Your task to perform on an android device: Show the shopping cart on target. Add "macbook pro 13 inch" to the cart on target Image 0: 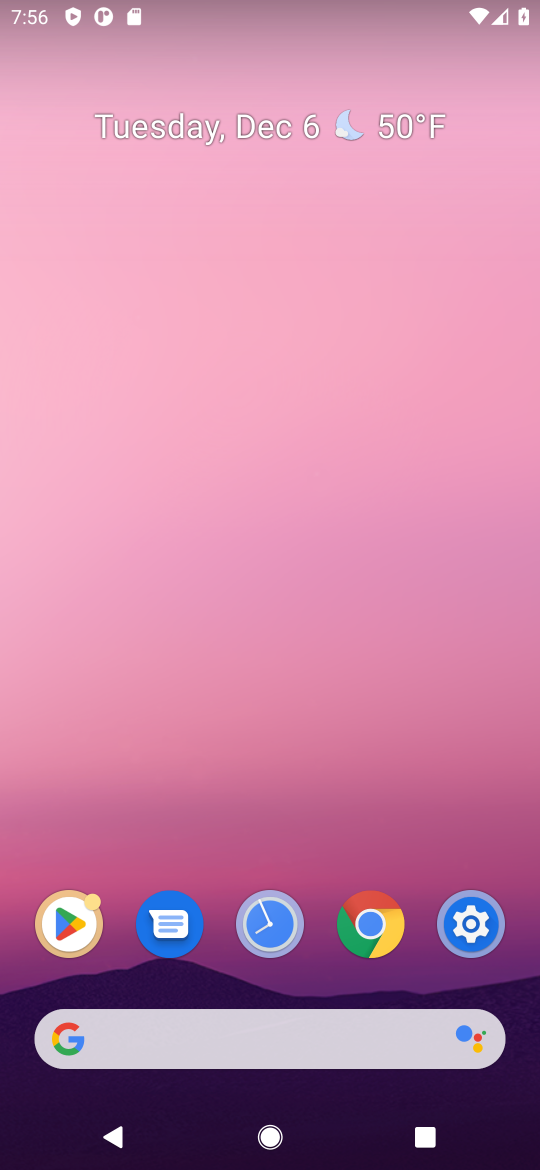
Step 0: click (262, 1024)
Your task to perform on an android device: Show the shopping cart on target. Add "macbook pro 13 inch" to the cart on target Image 1: 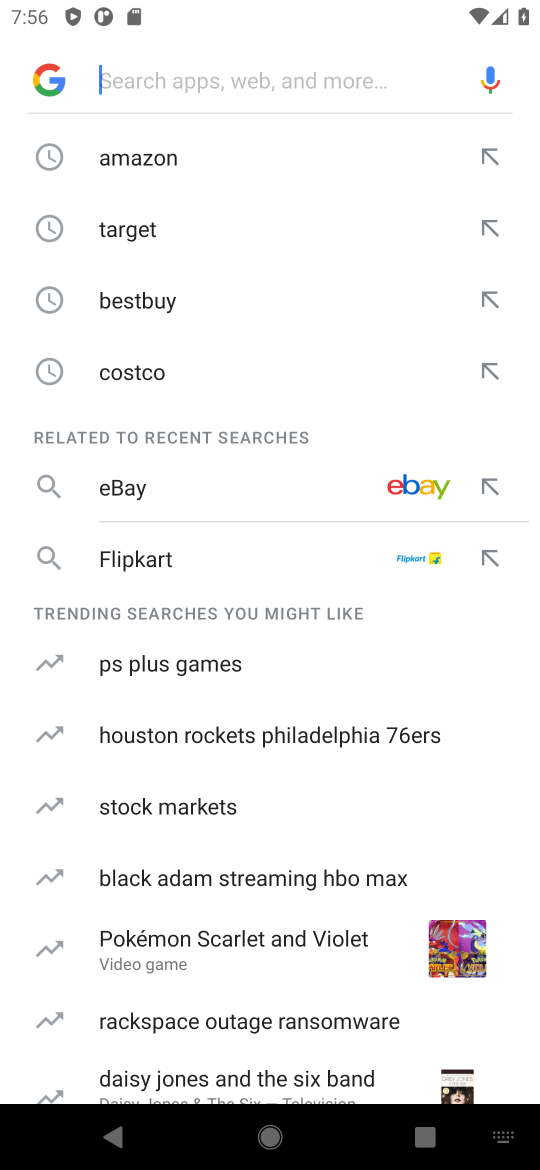
Step 1: type "target"
Your task to perform on an android device: Show the shopping cart on target. Add "macbook pro 13 inch" to the cart on target Image 2: 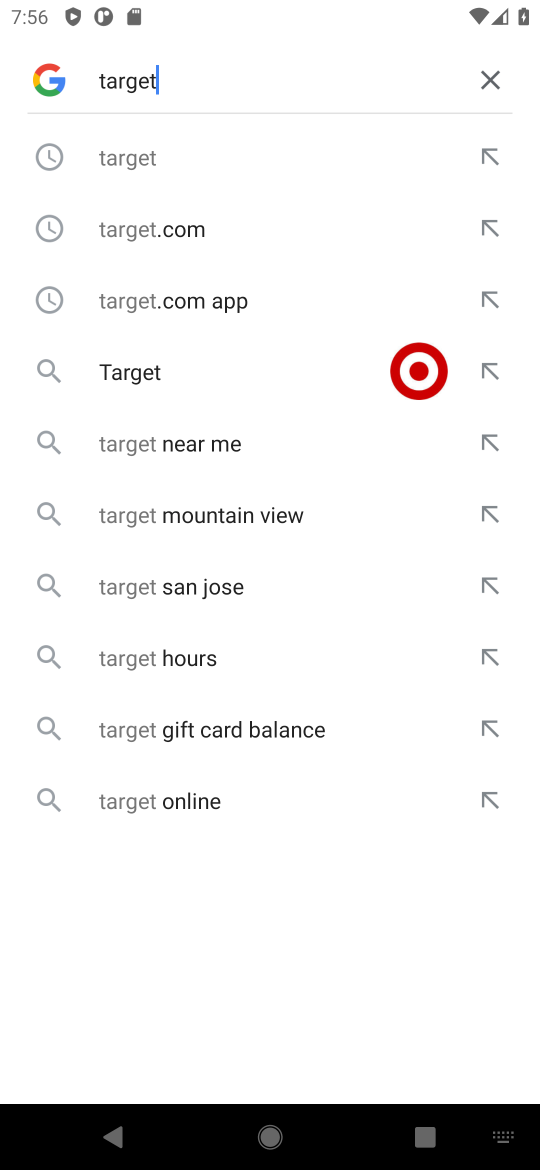
Step 2: click (170, 376)
Your task to perform on an android device: Show the shopping cart on target. Add "macbook pro 13 inch" to the cart on target Image 3: 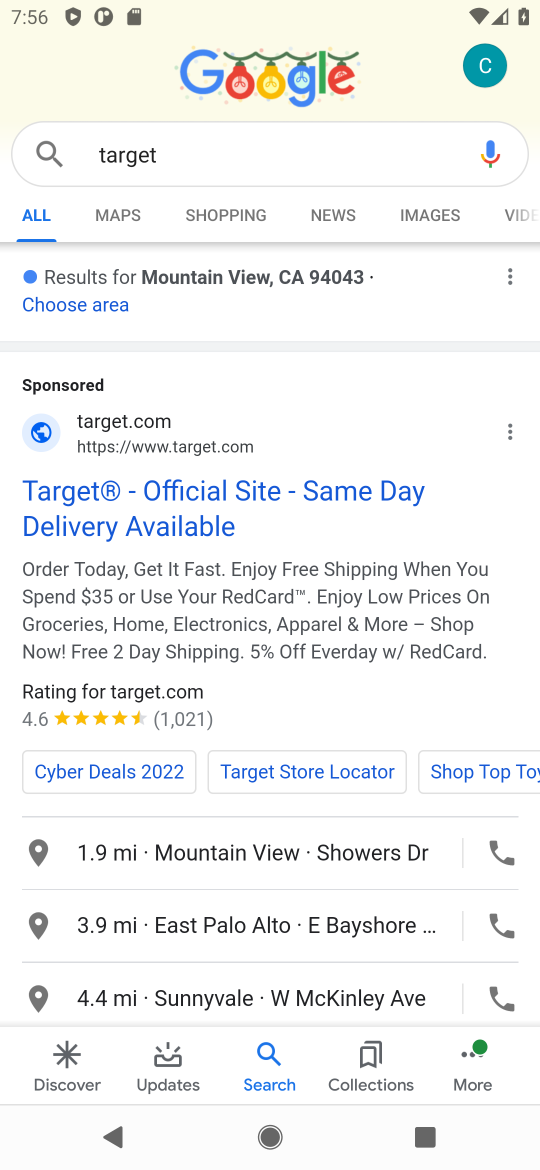
Step 3: click (125, 499)
Your task to perform on an android device: Show the shopping cart on target. Add "macbook pro 13 inch" to the cart on target Image 4: 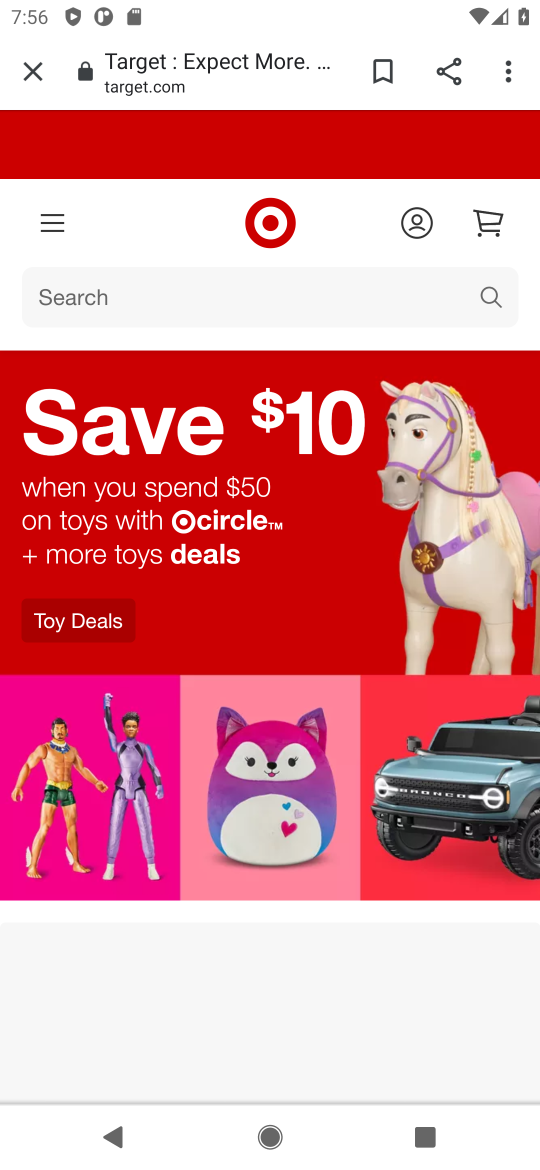
Step 4: click (285, 282)
Your task to perform on an android device: Show the shopping cart on target. Add "macbook pro 13 inch" to the cart on target Image 5: 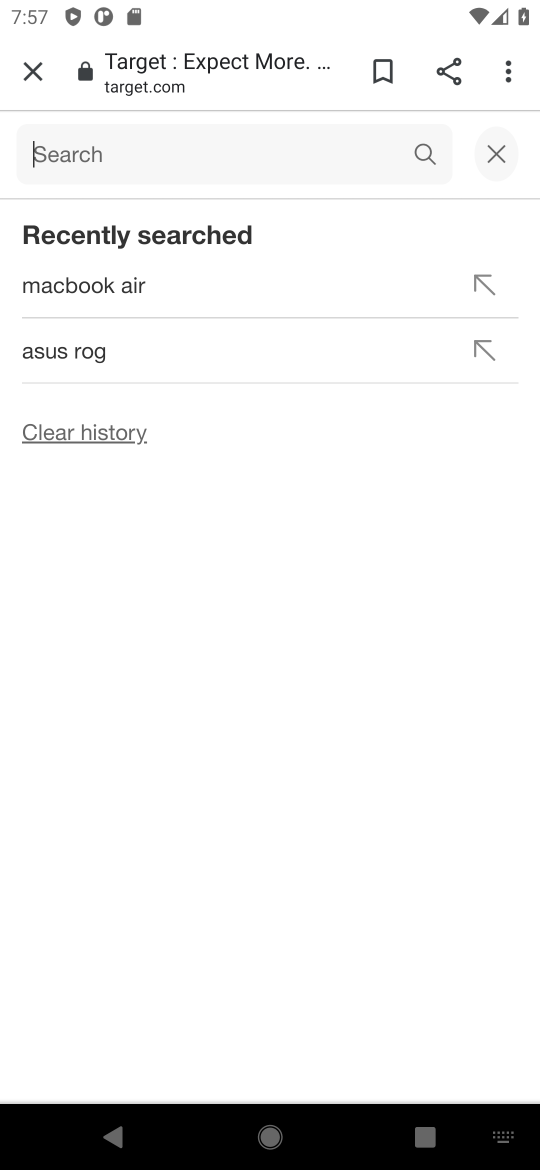
Step 5: type "macbook air pro 13"
Your task to perform on an android device: Show the shopping cart on target. Add "macbook pro 13 inch" to the cart on target Image 6: 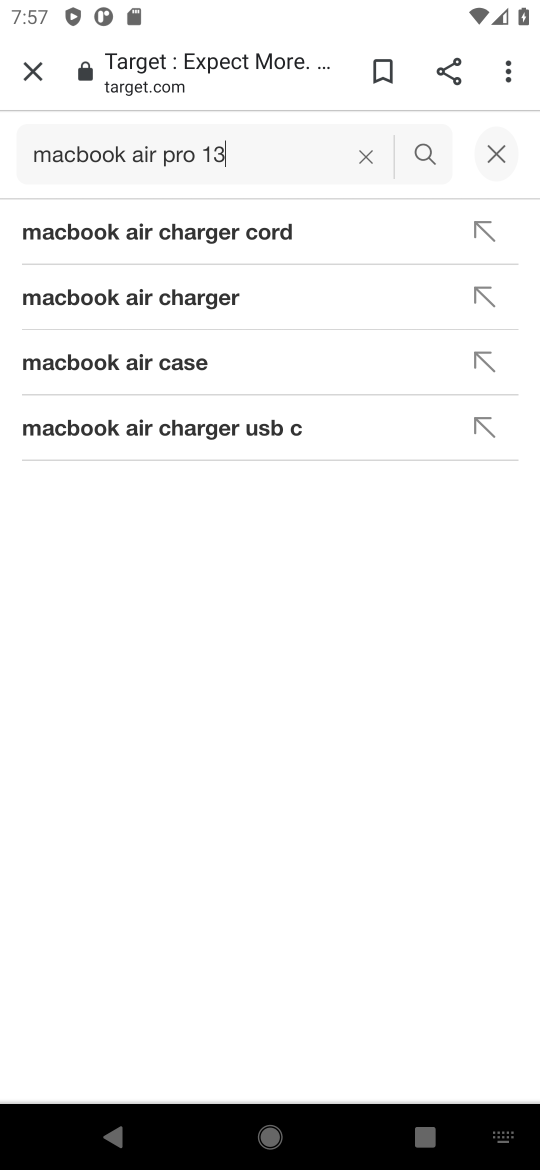
Step 6: click (428, 171)
Your task to perform on an android device: Show the shopping cart on target. Add "macbook pro 13 inch" to the cart on target Image 7: 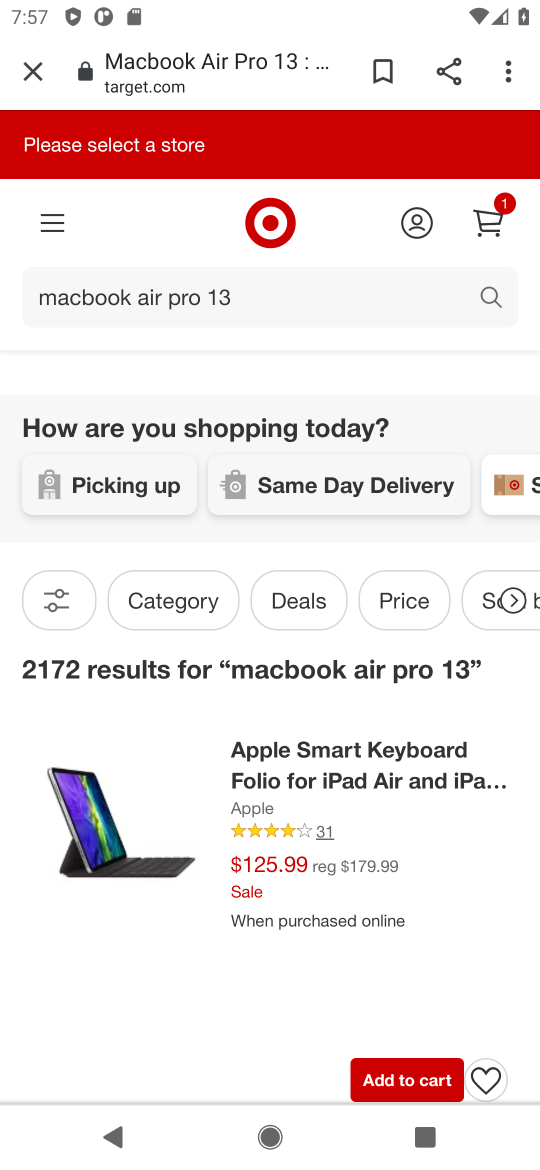
Step 7: click (406, 1075)
Your task to perform on an android device: Show the shopping cart on target. Add "macbook pro 13 inch" to the cart on target Image 8: 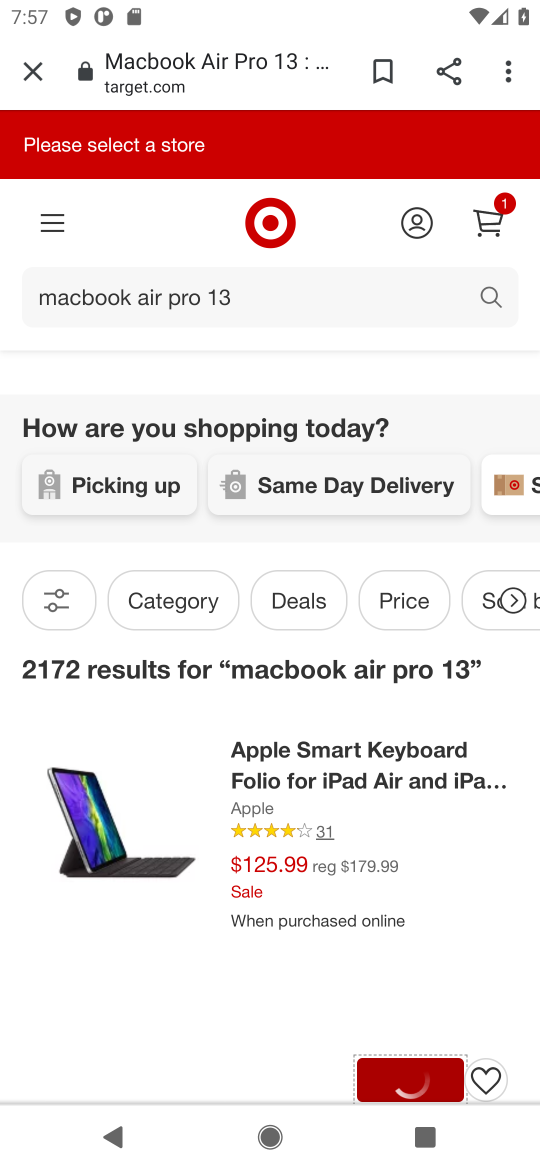
Step 8: task complete